Your task to perform on an android device: Open calendar and show me the second week of next month Image 0: 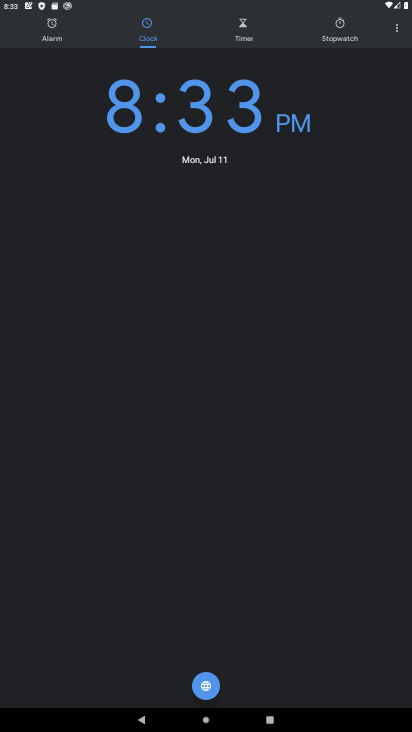
Step 0: drag from (346, 420) to (306, 277)
Your task to perform on an android device: Open calendar and show me the second week of next month Image 1: 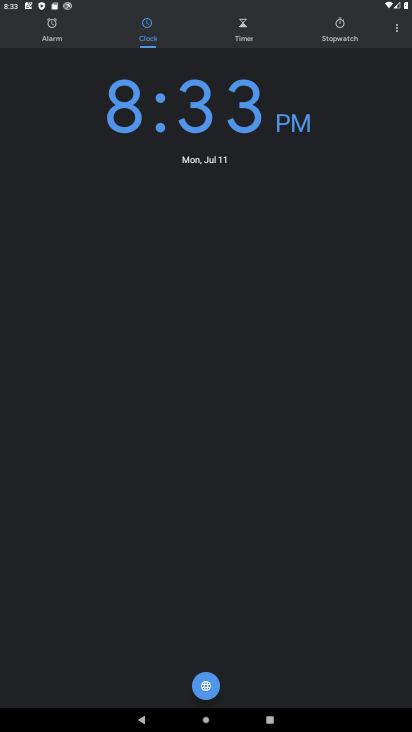
Step 1: press back button
Your task to perform on an android device: Open calendar and show me the second week of next month Image 2: 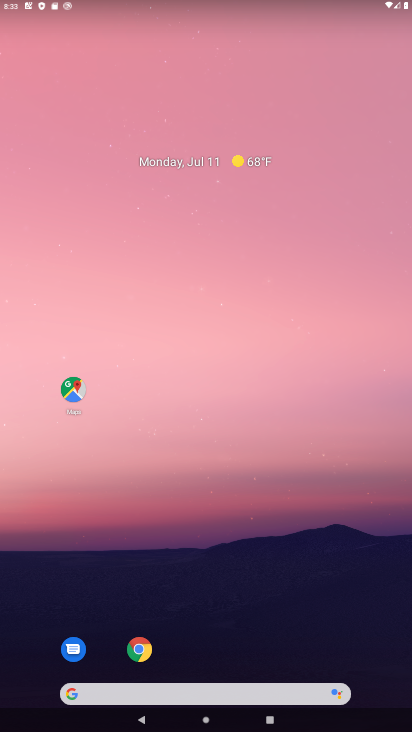
Step 2: drag from (199, 264) to (188, 223)
Your task to perform on an android device: Open calendar and show me the second week of next month Image 3: 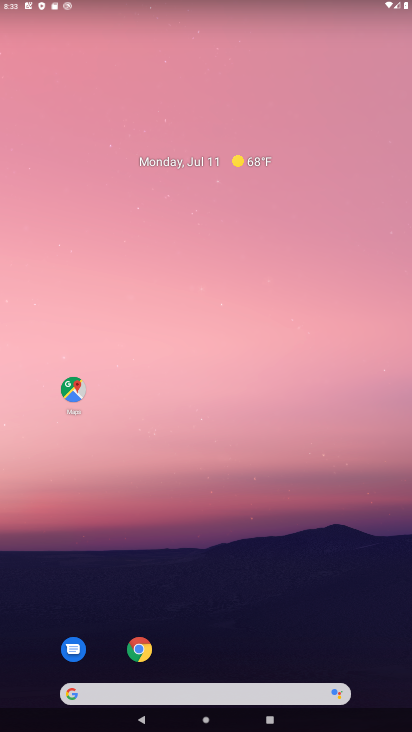
Step 3: drag from (342, 700) to (190, 229)
Your task to perform on an android device: Open calendar and show me the second week of next month Image 4: 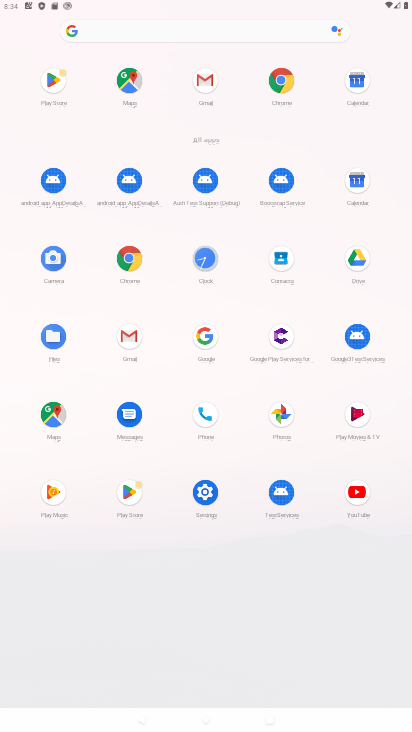
Step 4: click (355, 183)
Your task to perform on an android device: Open calendar and show me the second week of next month Image 5: 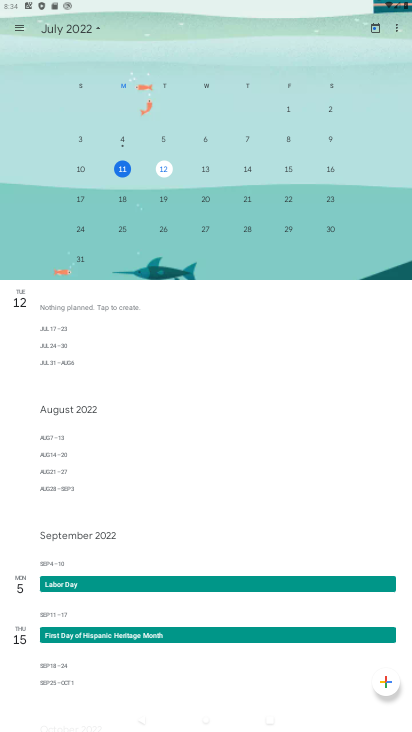
Step 5: drag from (335, 157) to (23, 189)
Your task to perform on an android device: Open calendar and show me the second week of next month Image 6: 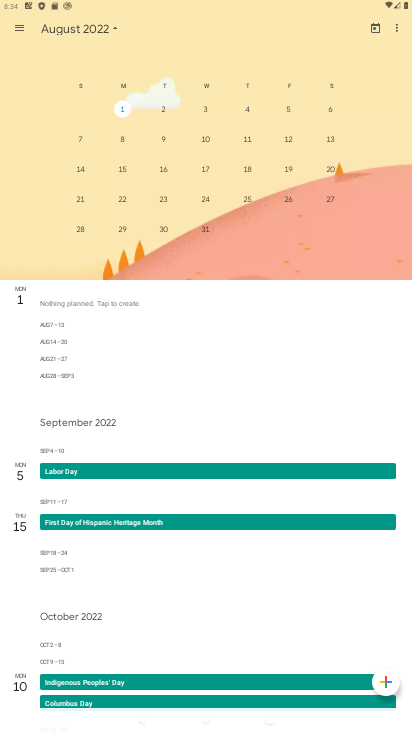
Step 6: click (161, 140)
Your task to perform on an android device: Open calendar and show me the second week of next month Image 7: 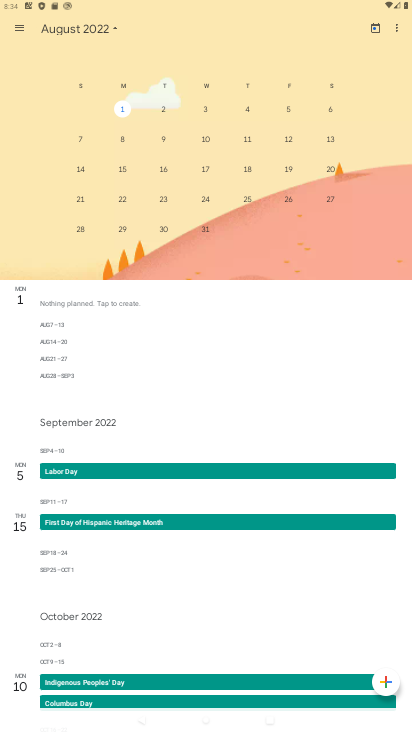
Step 7: click (163, 143)
Your task to perform on an android device: Open calendar and show me the second week of next month Image 8: 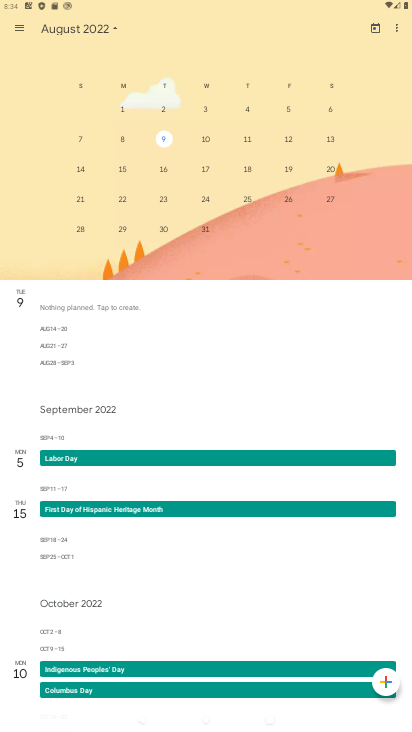
Step 8: click (164, 144)
Your task to perform on an android device: Open calendar and show me the second week of next month Image 9: 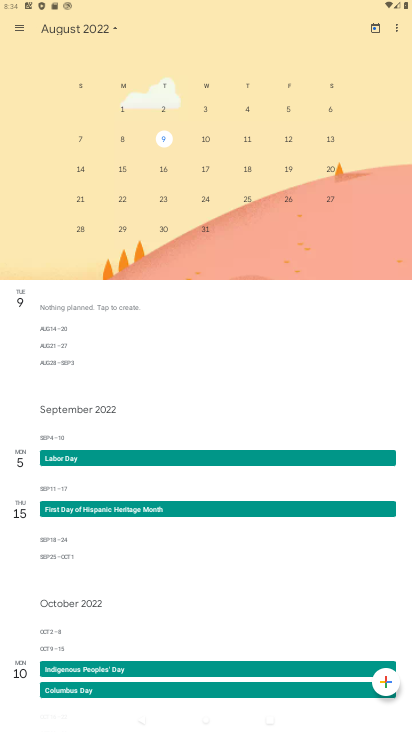
Step 9: click (164, 144)
Your task to perform on an android device: Open calendar and show me the second week of next month Image 10: 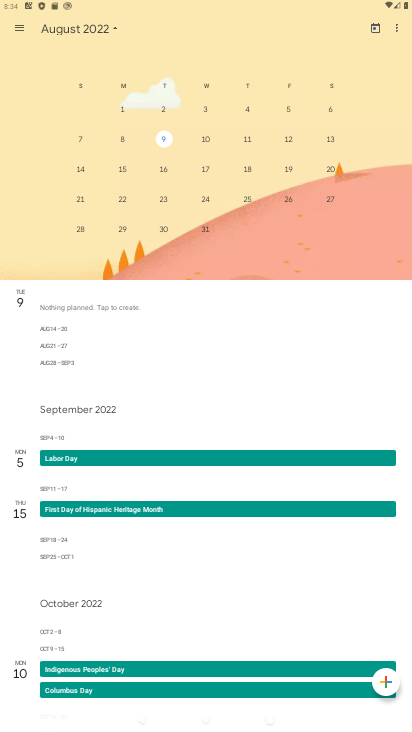
Step 10: task complete